Your task to perform on an android device: turn smart compose on in the gmail app Image 0: 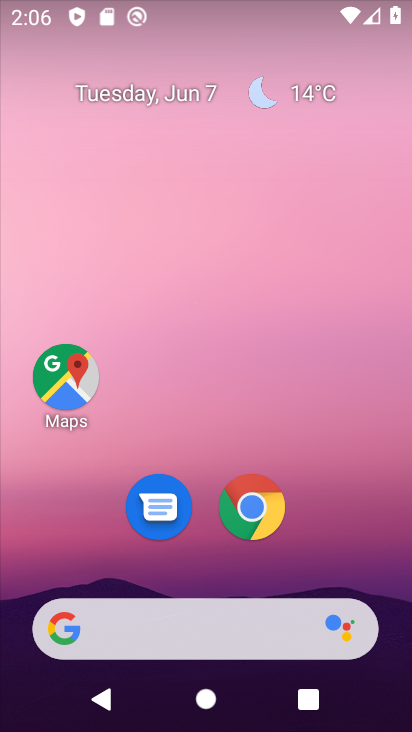
Step 0: drag from (352, 521) to (255, 102)
Your task to perform on an android device: turn smart compose on in the gmail app Image 1: 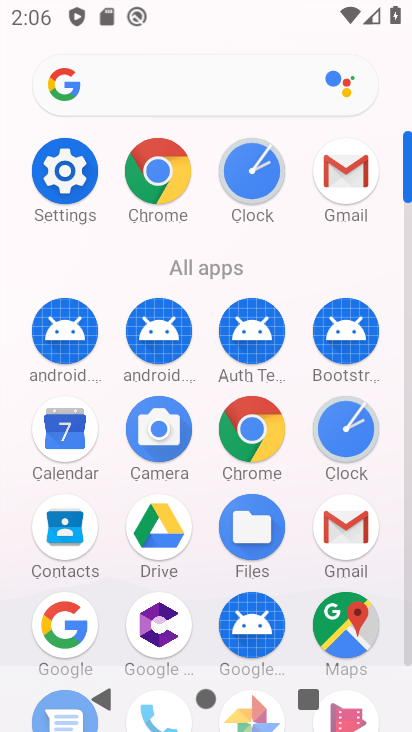
Step 1: click (339, 173)
Your task to perform on an android device: turn smart compose on in the gmail app Image 2: 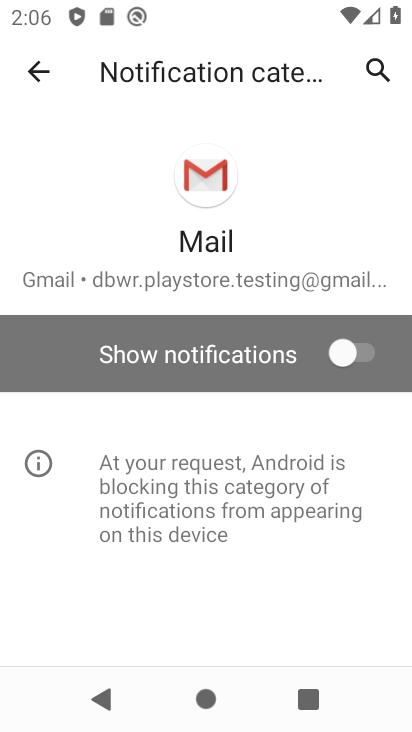
Step 2: click (45, 74)
Your task to perform on an android device: turn smart compose on in the gmail app Image 3: 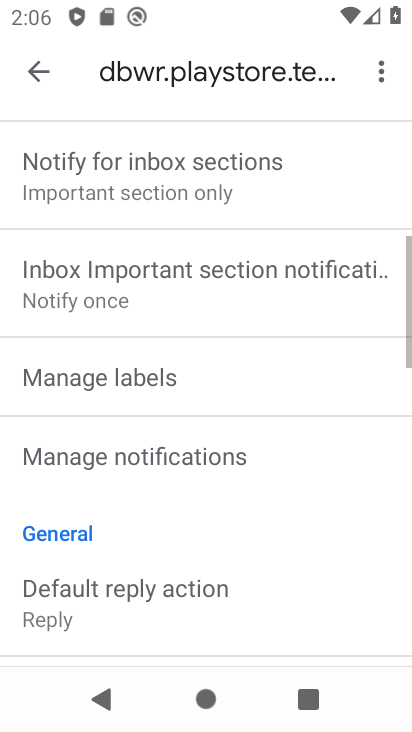
Step 3: click (45, 73)
Your task to perform on an android device: turn smart compose on in the gmail app Image 4: 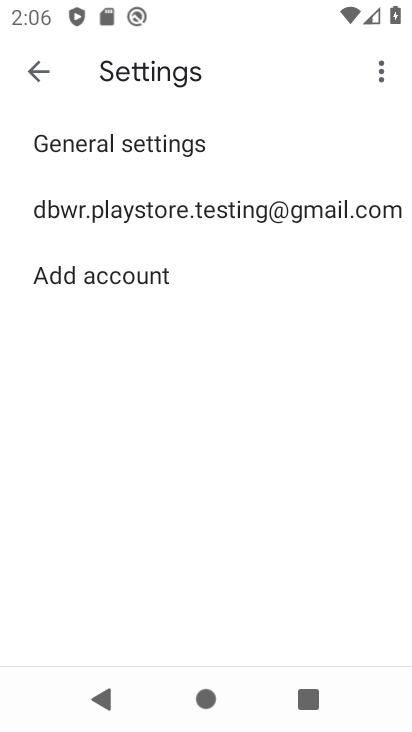
Step 4: click (45, 73)
Your task to perform on an android device: turn smart compose on in the gmail app Image 5: 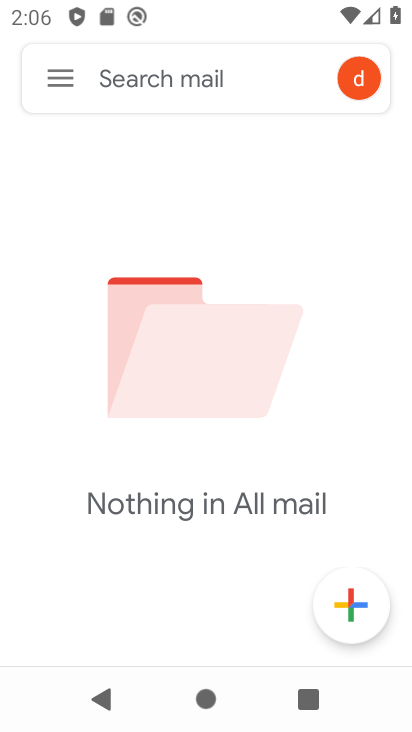
Step 5: click (42, 72)
Your task to perform on an android device: turn smart compose on in the gmail app Image 6: 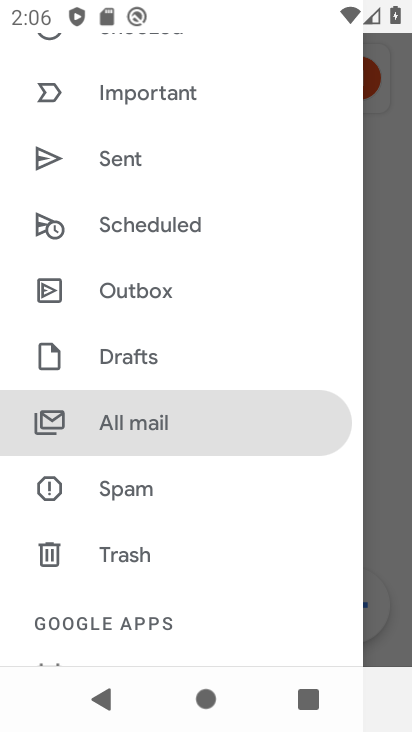
Step 6: drag from (134, 540) to (153, 114)
Your task to perform on an android device: turn smart compose on in the gmail app Image 7: 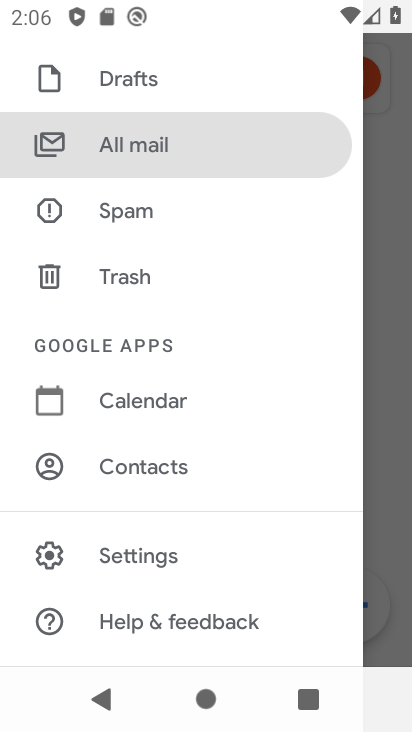
Step 7: click (146, 550)
Your task to perform on an android device: turn smart compose on in the gmail app Image 8: 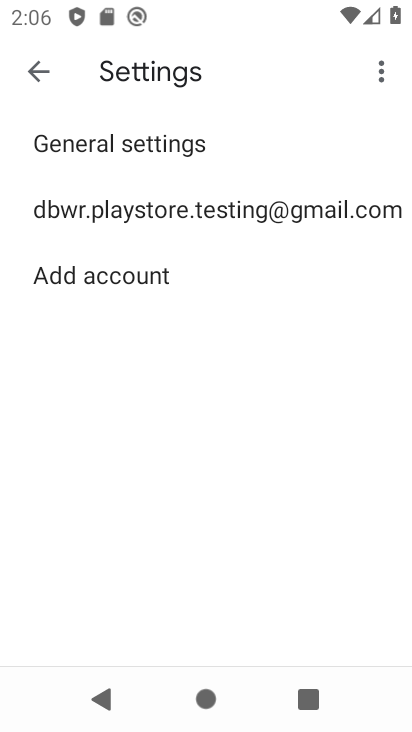
Step 8: click (260, 219)
Your task to perform on an android device: turn smart compose on in the gmail app Image 9: 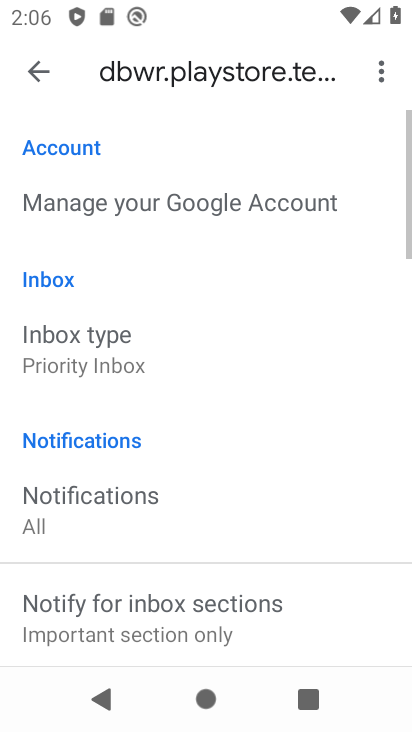
Step 9: drag from (221, 445) to (270, 39)
Your task to perform on an android device: turn smart compose on in the gmail app Image 10: 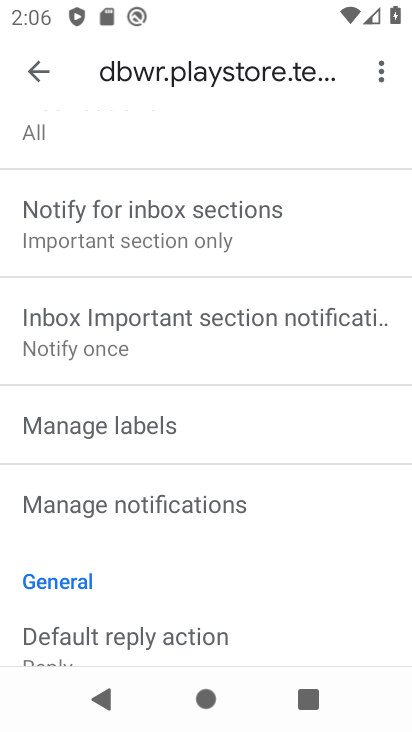
Step 10: drag from (261, 496) to (277, 150)
Your task to perform on an android device: turn smart compose on in the gmail app Image 11: 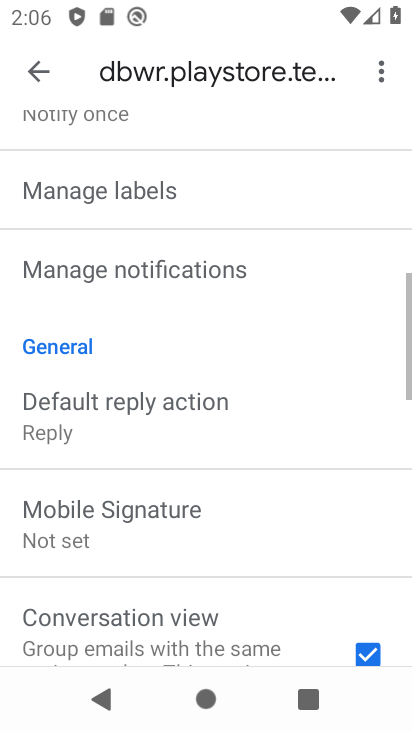
Step 11: click (277, 122)
Your task to perform on an android device: turn smart compose on in the gmail app Image 12: 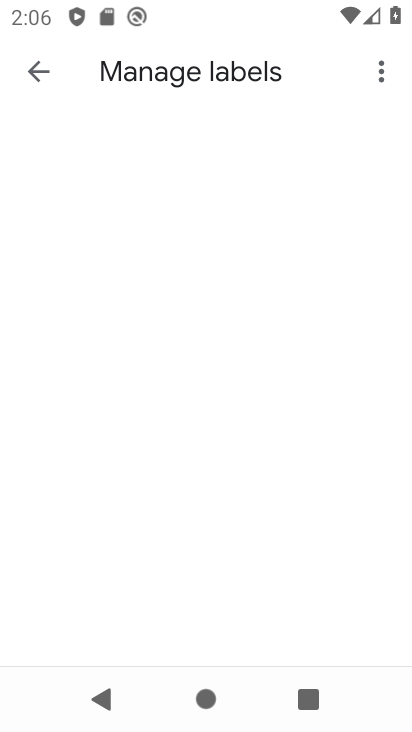
Step 12: drag from (248, 442) to (287, 178)
Your task to perform on an android device: turn smart compose on in the gmail app Image 13: 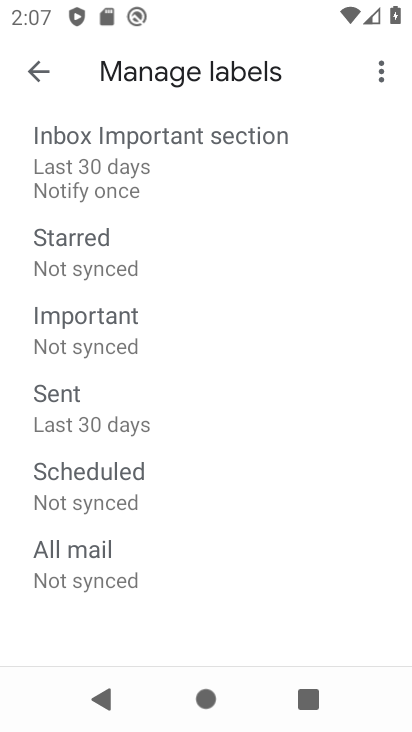
Step 13: click (36, 81)
Your task to perform on an android device: turn smart compose on in the gmail app Image 14: 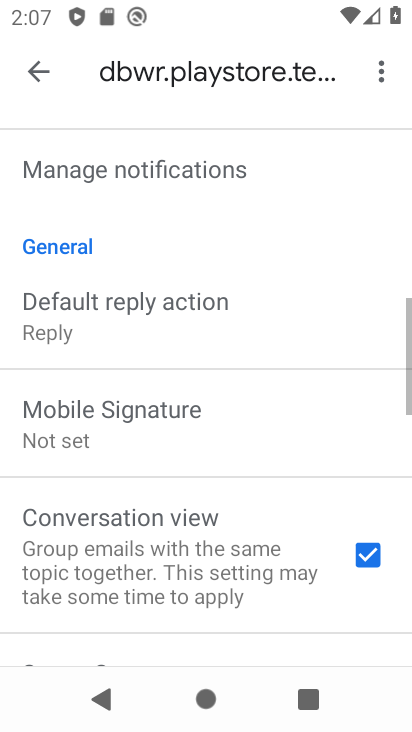
Step 14: task complete